Your task to perform on an android device: move an email to a new category in the gmail app Image 0: 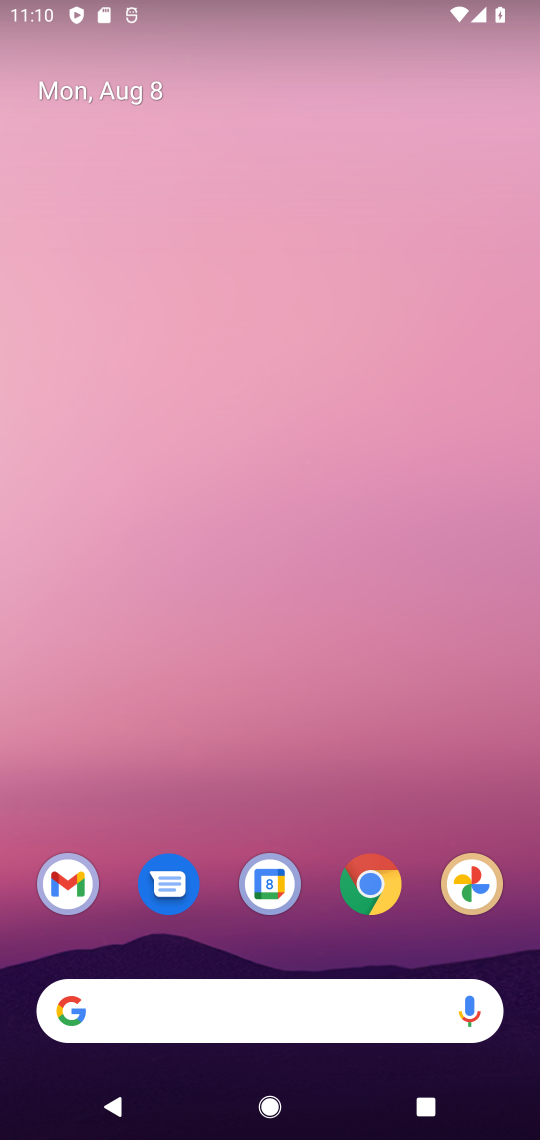
Step 0: click (59, 895)
Your task to perform on an android device: move an email to a new category in the gmail app Image 1: 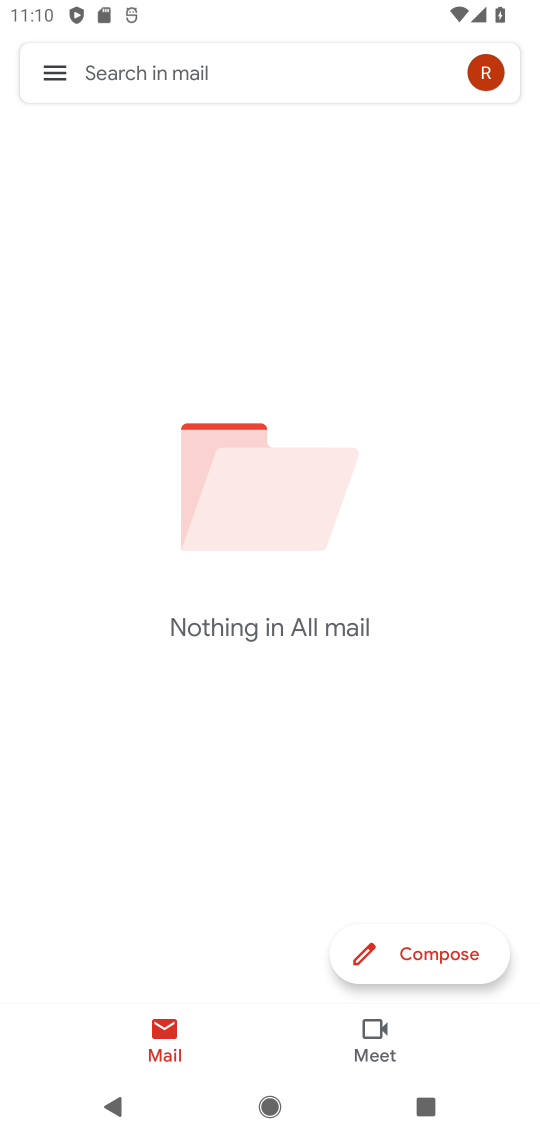
Step 1: task complete